Your task to perform on an android device: clear history in the chrome app Image 0: 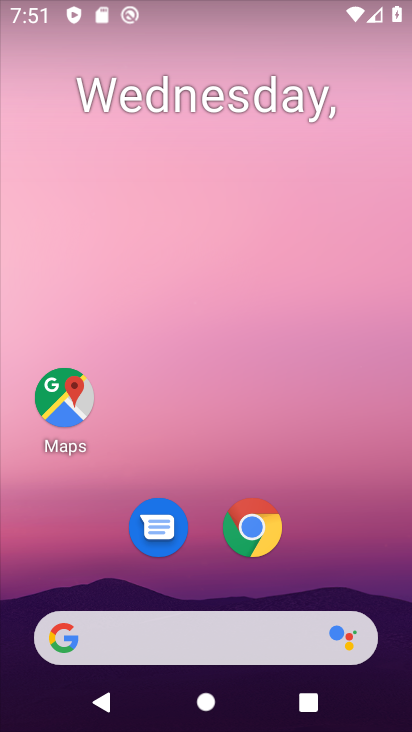
Step 0: click (260, 536)
Your task to perform on an android device: clear history in the chrome app Image 1: 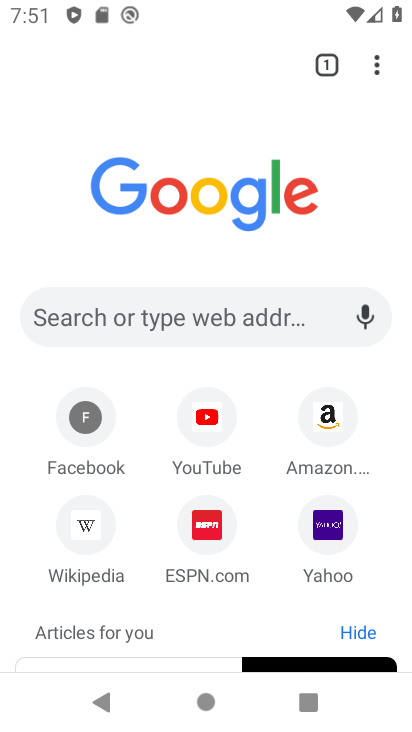
Step 1: click (375, 67)
Your task to perform on an android device: clear history in the chrome app Image 2: 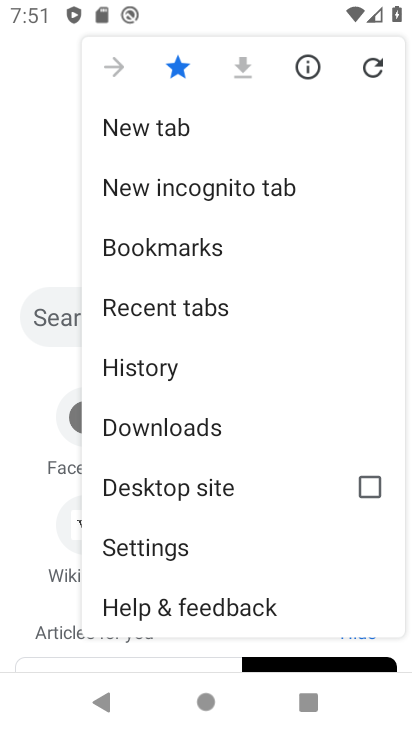
Step 2: click (146, 369)
Your task to perform on an android device: clear history in the chrome app Image 3: 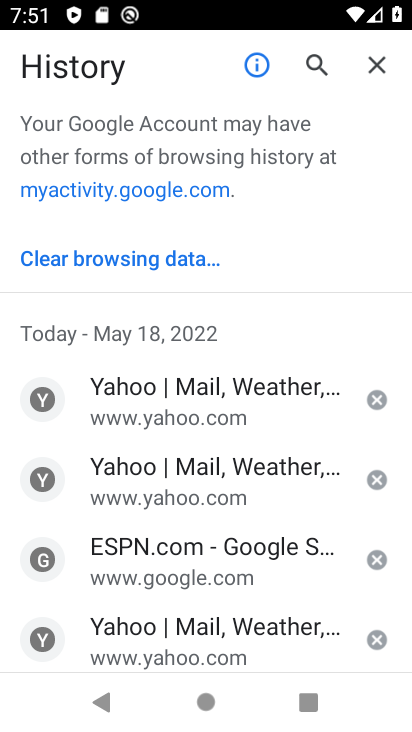
Step 3: click (120, 253)
Your task to perform on an android device: clear history in the chrome app Image 4: 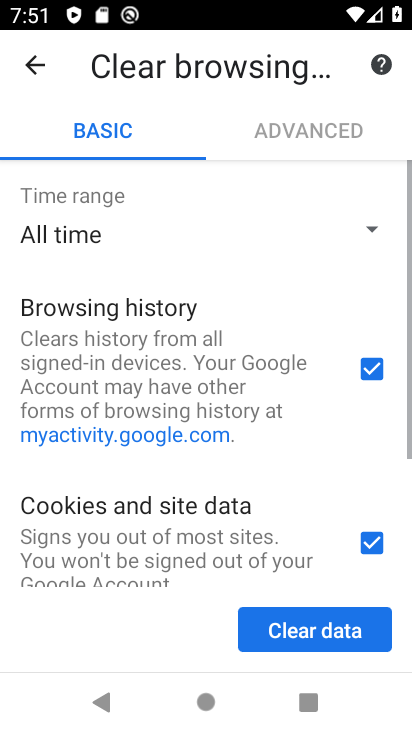
Step 4: click (288, 629)
Your task to perform on an android device: clear history in the chrome app Image 5: 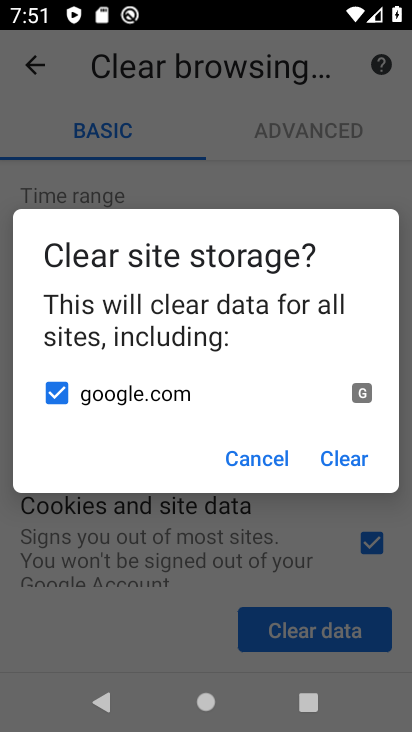
Step 5: click (349, 459)
Your task to perform on an android device: clear history in the chrome app Image 6: 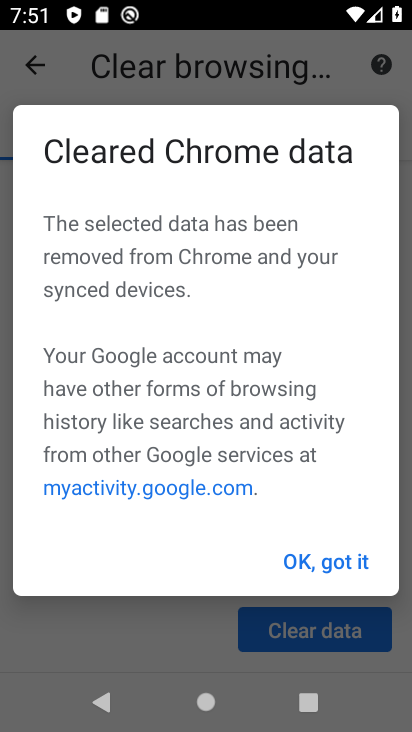
Step 6: click (325, 556)
Your task to perform on an android device: clear history in the chrome app Image 7: 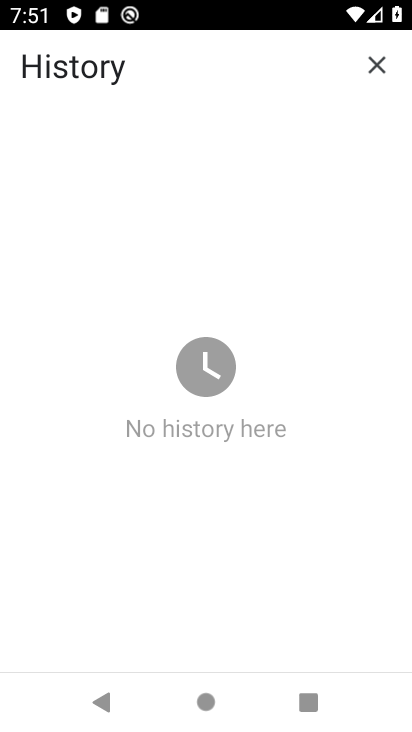
Step 7: task complete